Your task to perform on an android device: Open privacy settings Image 0: 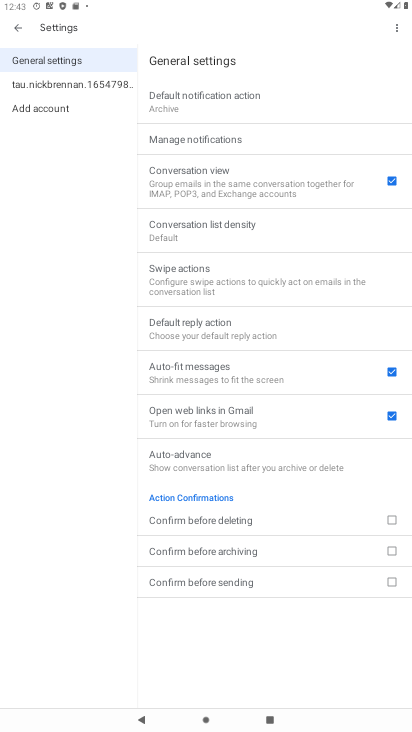
Step 0: press home button
Your task to perform on an android device: Open privacy settings Image 1: 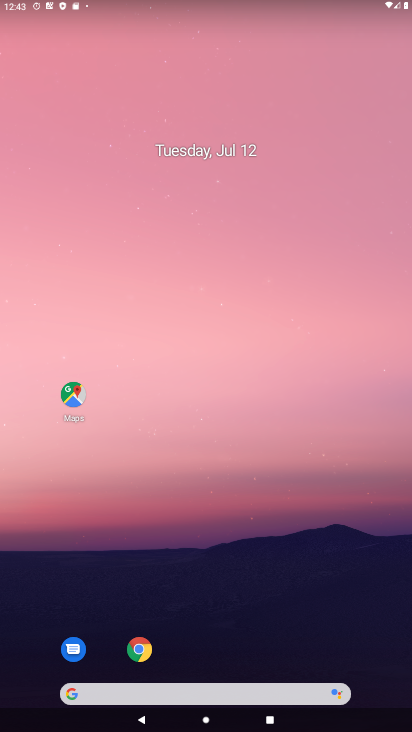
Step 1: drag from (374, 694) to (205, 4)
Your task to perform on an android device: Open privacy settings Image 2: 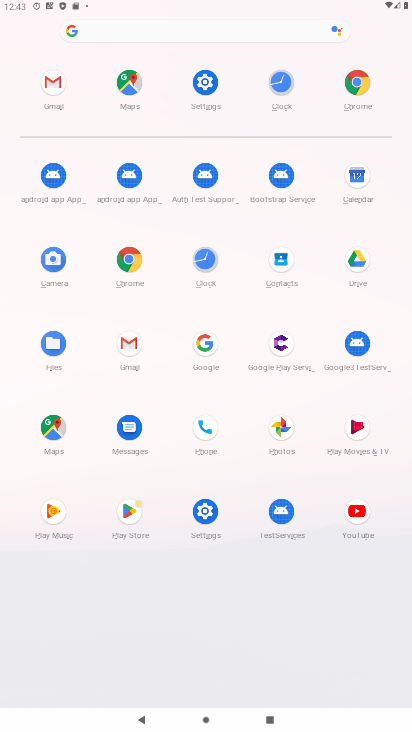
Step 2: click (203, 517)
Your task to perform on an android device: Open privacy settings Image 3: 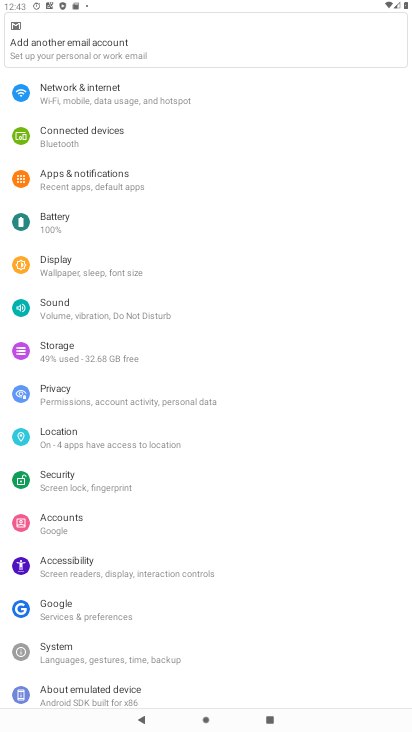
Step 3: click (58, 389)
Your task to perform on an android device: Open privacy settings Image 4: 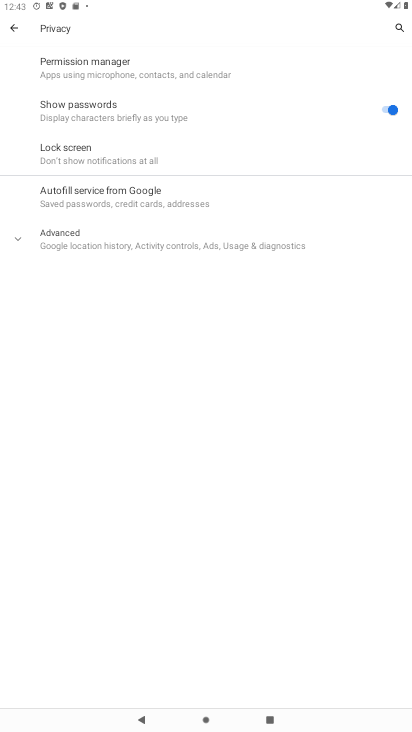
Step 4: task complete